Your task to perform on an android device: What's US dollar exchange rate against the British Pound? Image 0: 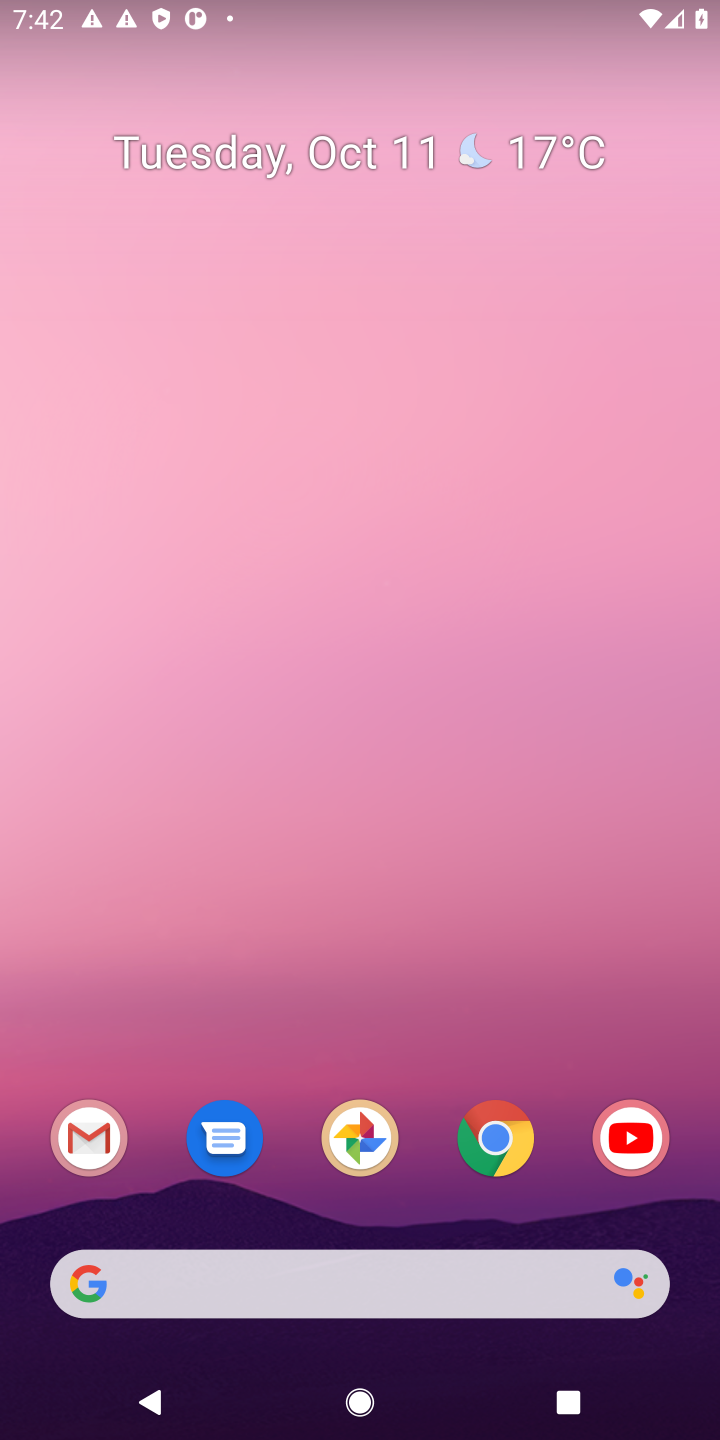
Step 0: click (148, 1271)
Your task to perform on an android device: What's US dollar exchange rate against the British Pound? Image 1: 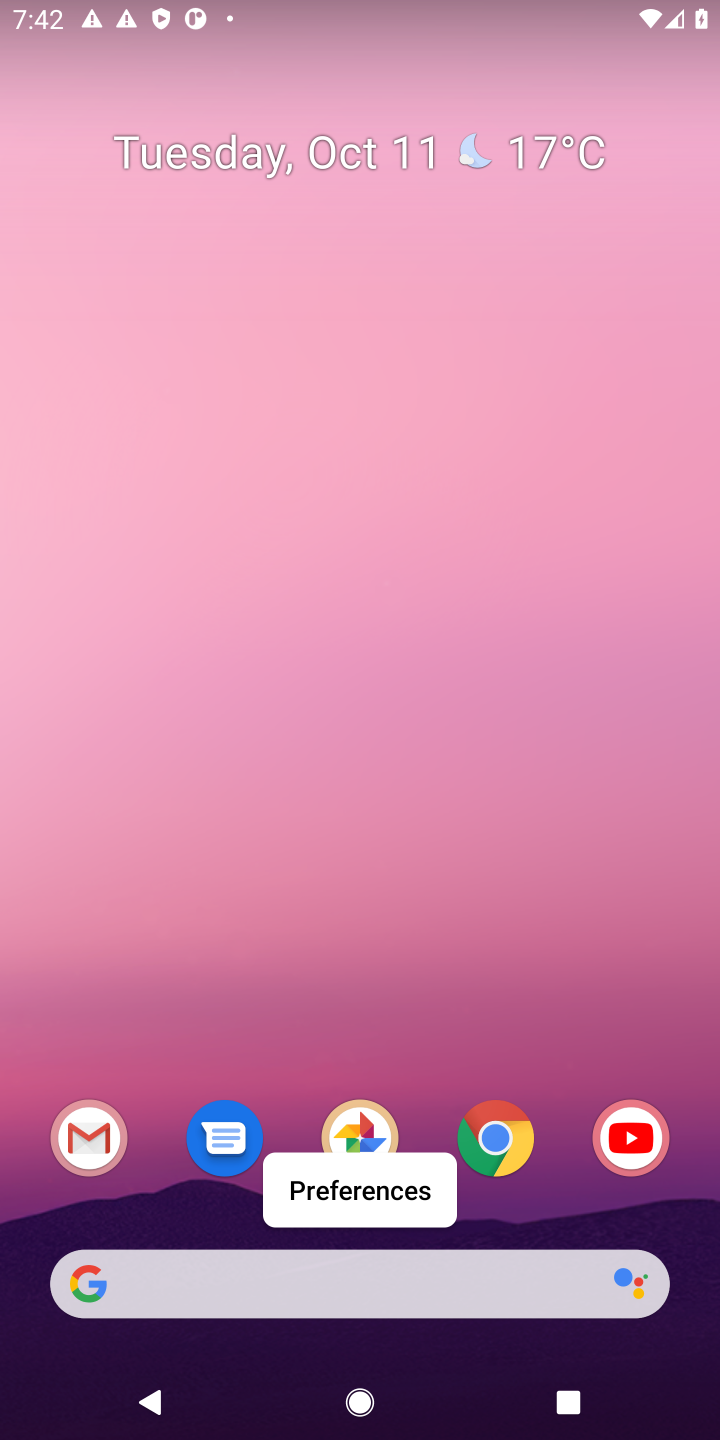
Step 1: click (396, 1270)
Your task to perform on an android device: What's US dollar exchange rate against the British Pound? Image 2: 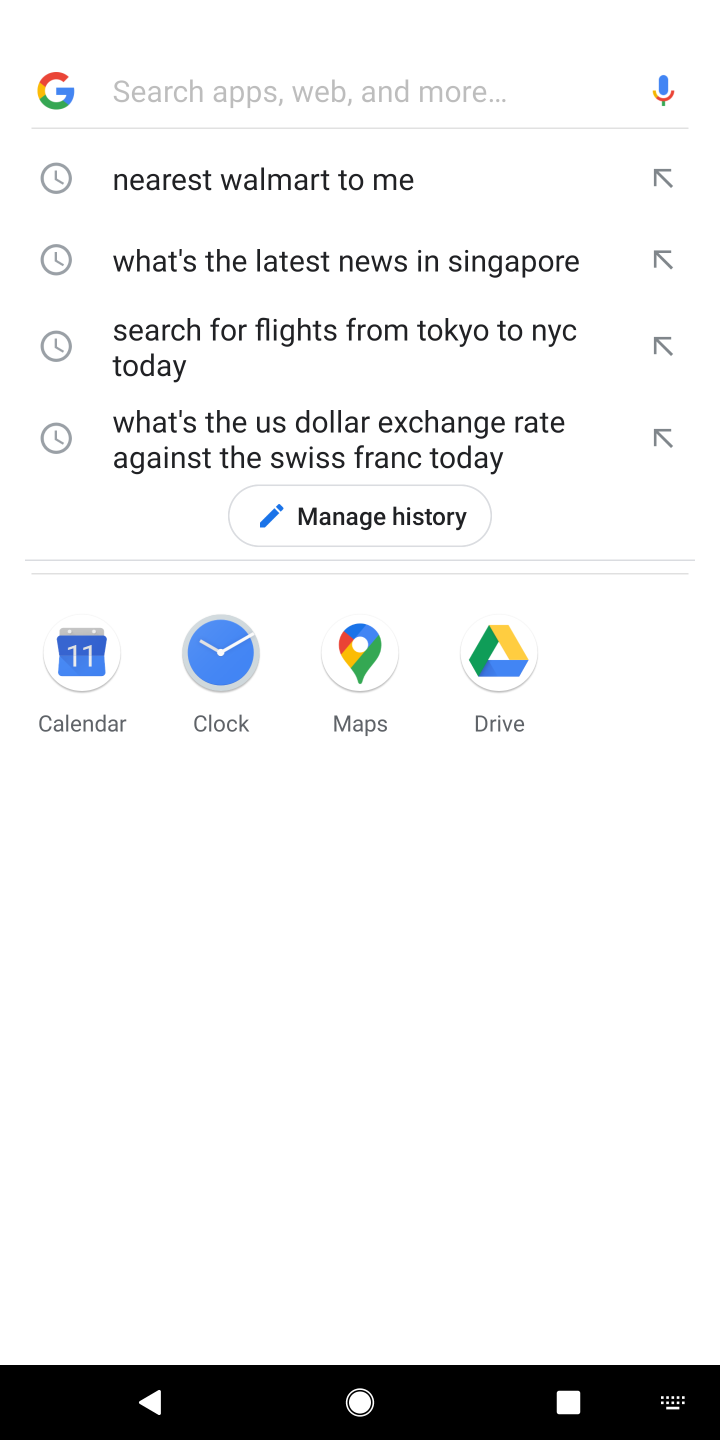
Step 2: type "What's US dollar exchange rate against the British Pound?"
Your task to perform on an android device: What's US dollar exchange rate against the British Pound? Image 3: 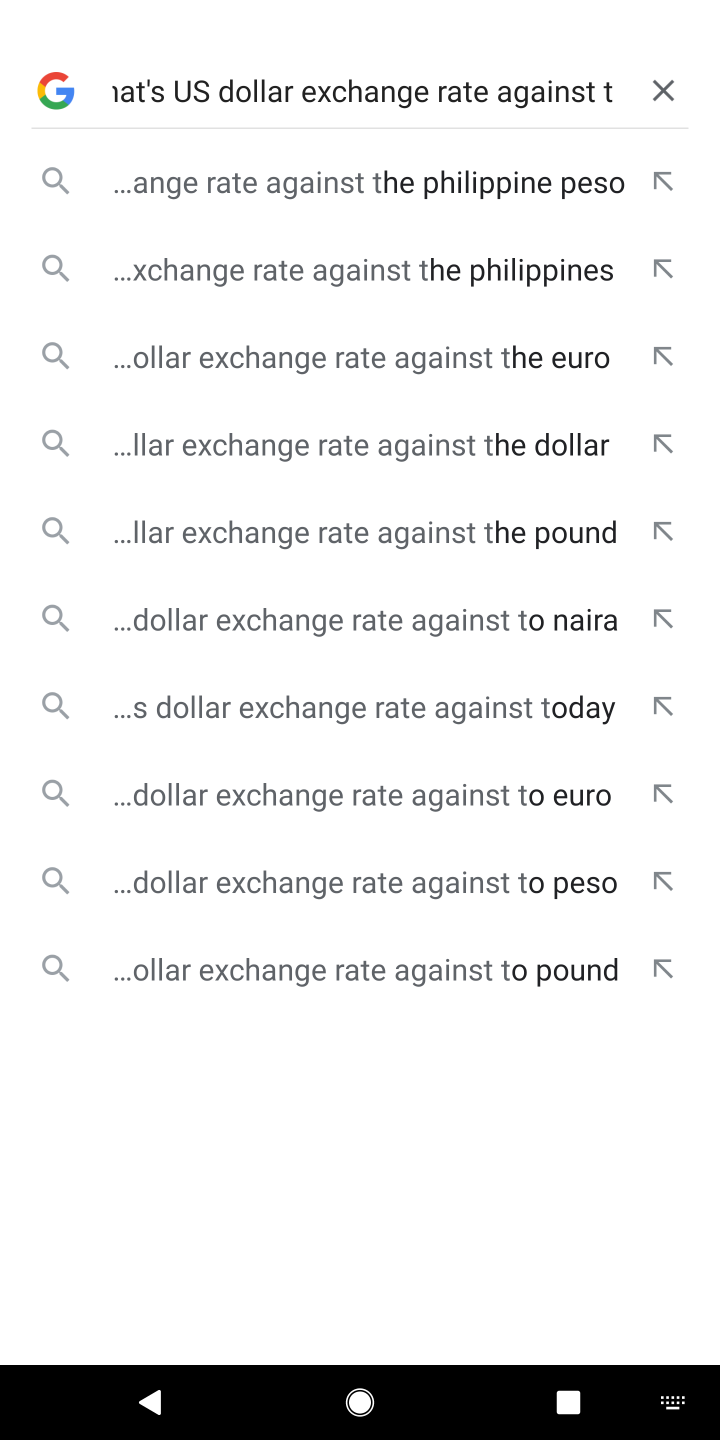
Step 3: type "he british pound"
Your task to perform on an android device: What's US dollar exchange rate against the British Pound? Image 4: 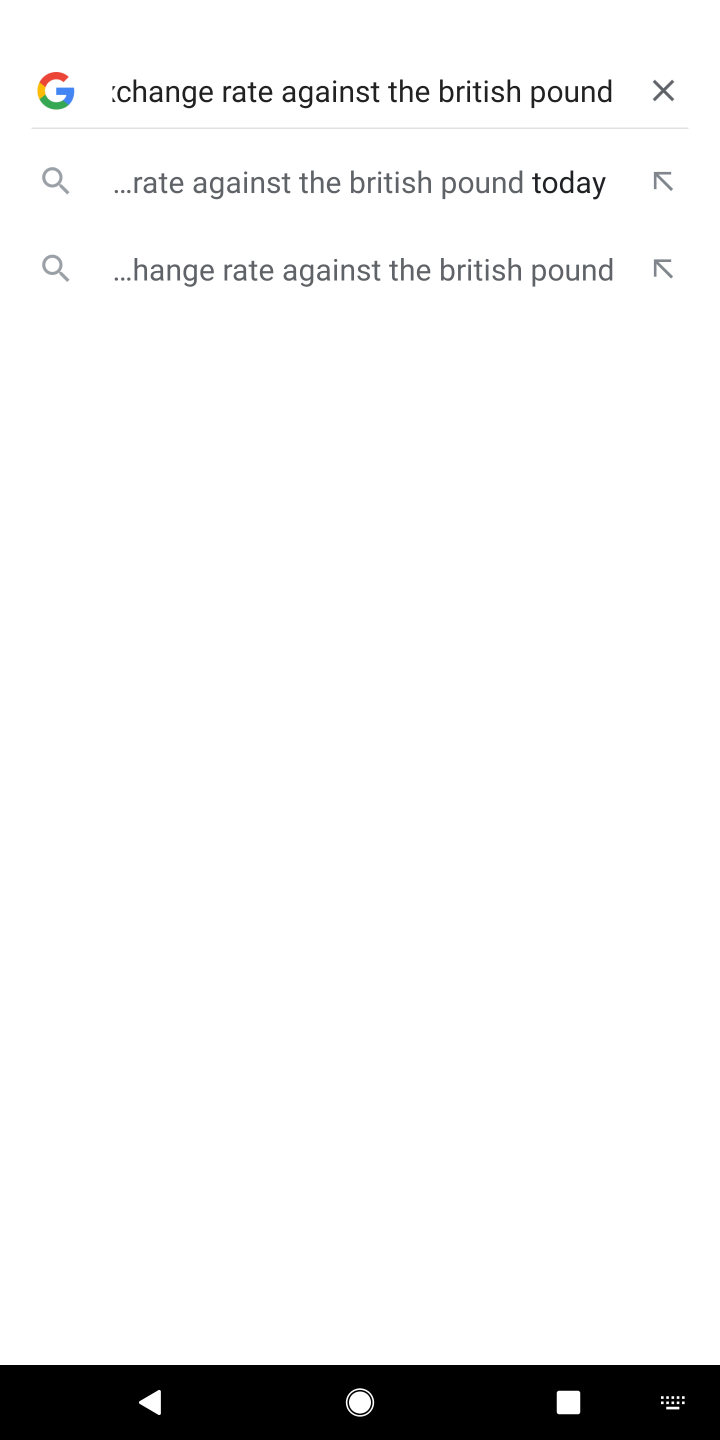
Step 4: click (419, 174)
Your task to perform on an android device: What's US dollar exchange rate against the British Pound? Image 5: 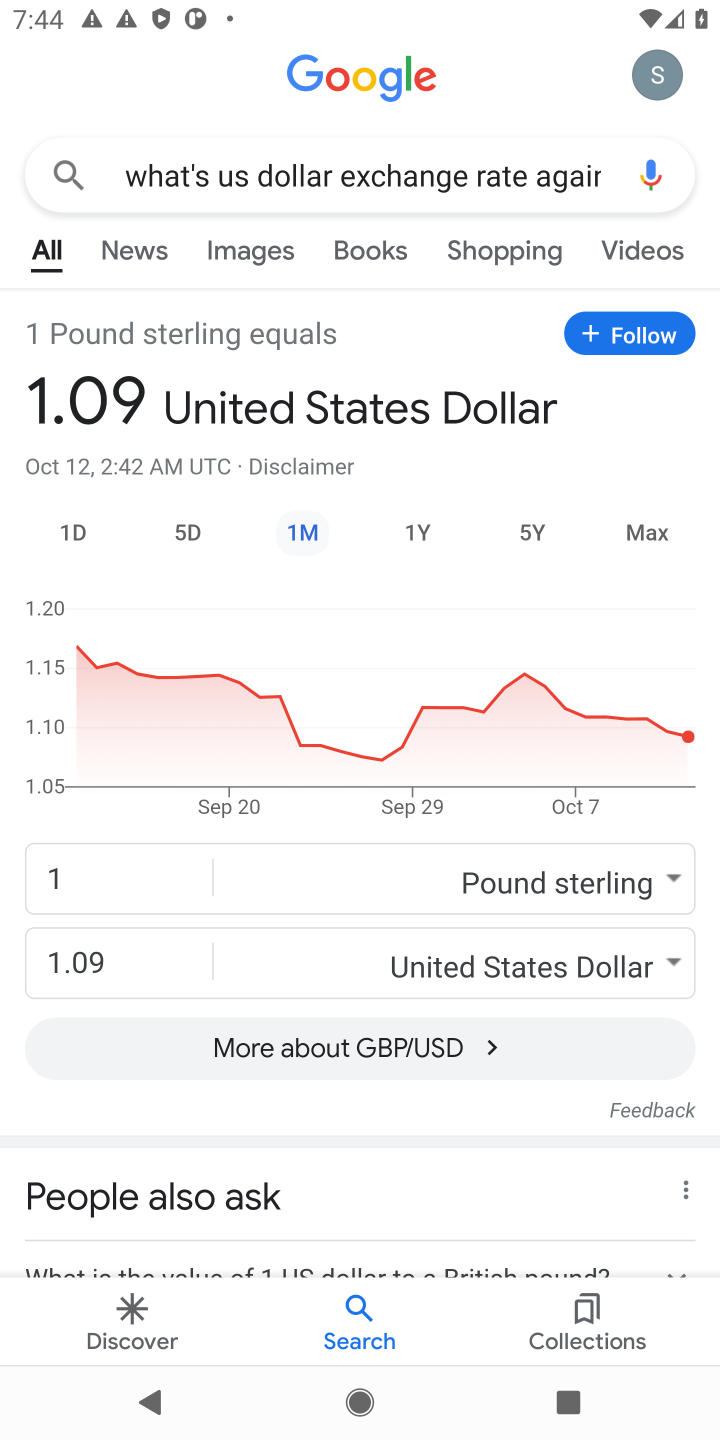
Step 5: task complete